Your task to perform on an android device: add a contact Image 0: 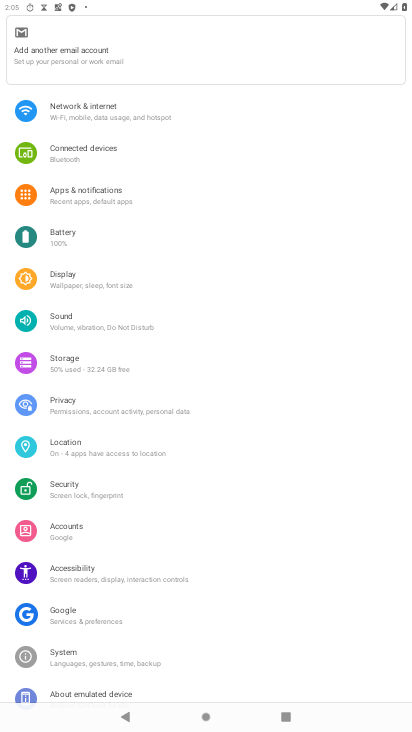
Step 0: press home button
Your task to perform on an android device: add a contact Image 1: 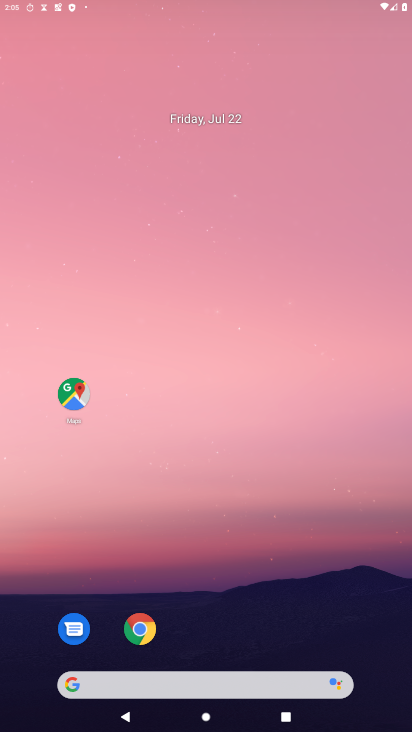
Step 1: drag from (208, 662) to (274, 103)
Your task to perform on an android device: add a contact Image 2: 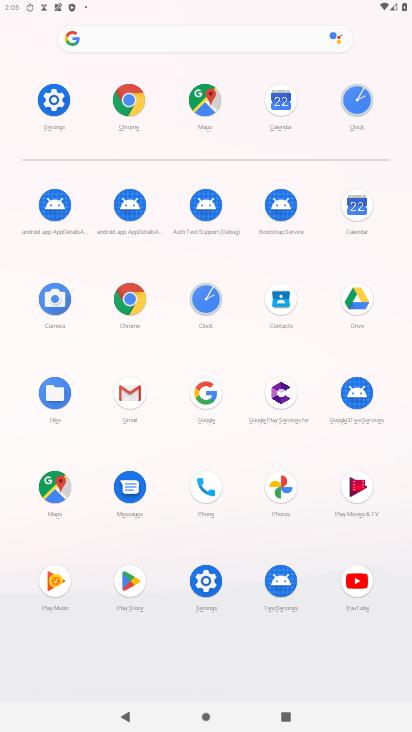
Step 2: click (282, 307)
Your task to perform on an android device: add a contact Image 3: 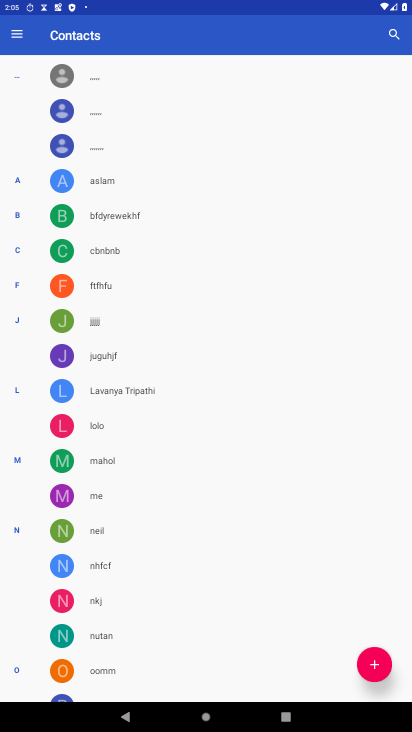
Step 3: click (391, 670)
Your task to perform on an android device: add a contact Image 4: 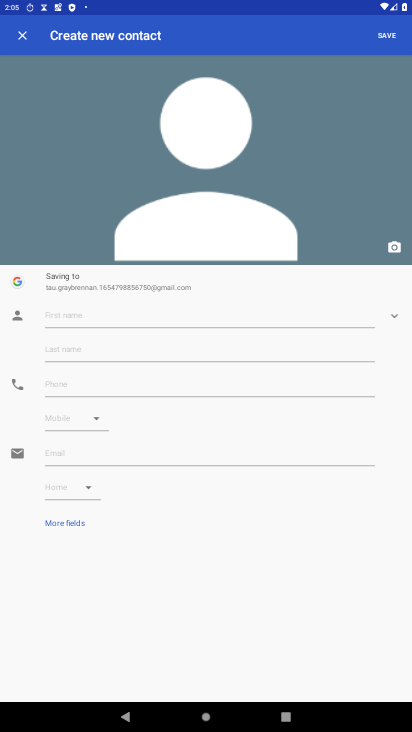
Step 4: click (102, 309)
Your task to perform on an android device: add a contact Image 5: 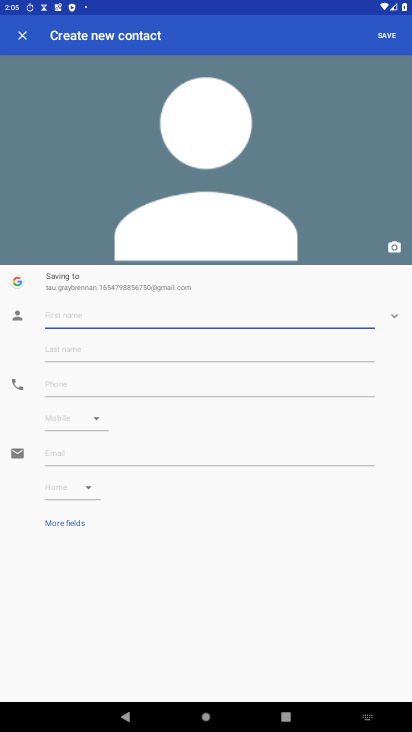
Step 5: type "sanjev "
Your task to perform on an android device: add a contact Image 6: 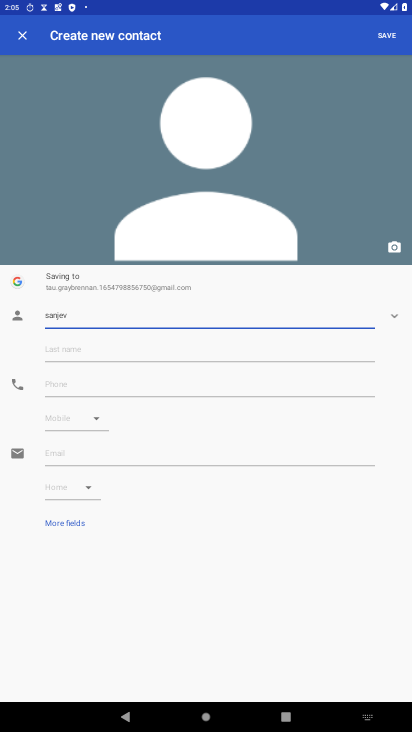
Step 6: click (99, 389)
Your task to perform on an android device: add a contact Image 7: 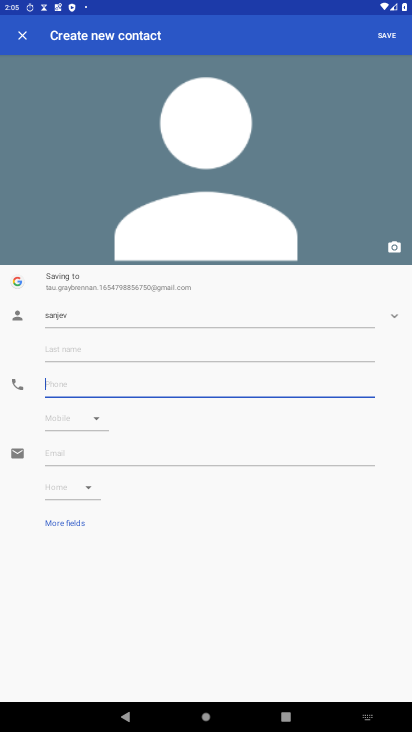
Step 7: type "9087667895"
Your task to perform on an android device: add a contact Image 8: 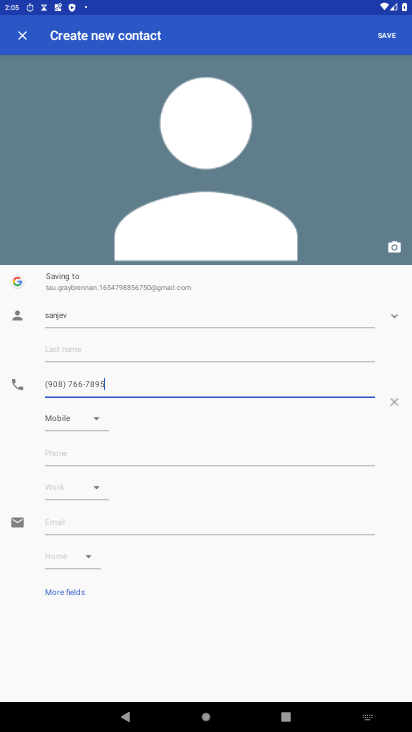
Step 8: click (384, 33)
Your task to perform on an android device: add a contact Image 9: 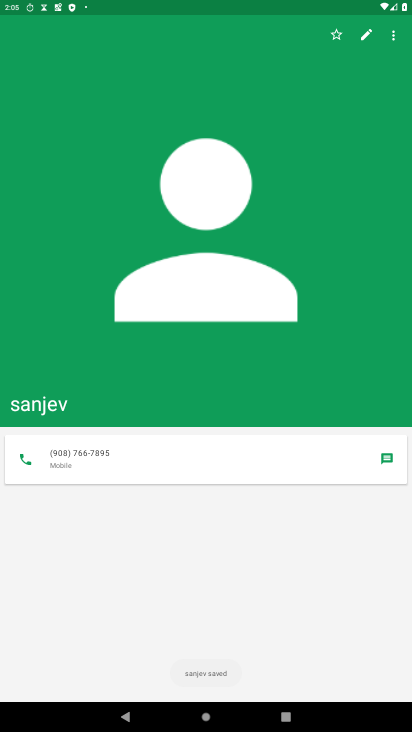
Step 9: task complete